Your task to perform on an android device: turn off wifi Image 0: 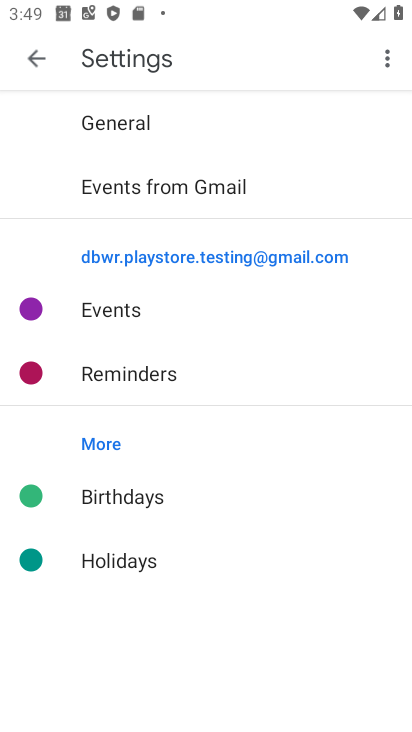
Step 0: press home button
Your task to perform on an android device: turn off wifi Image 1: 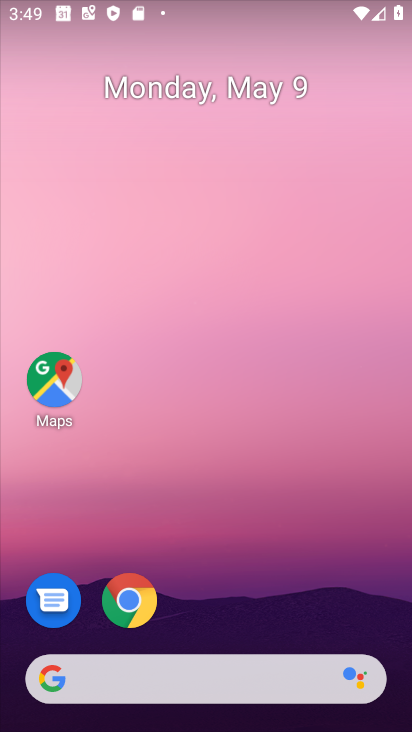
Step 1: drag from (266, 652) to (294, 58)
Your task to perform on an android device: turn off wifi Image 2: 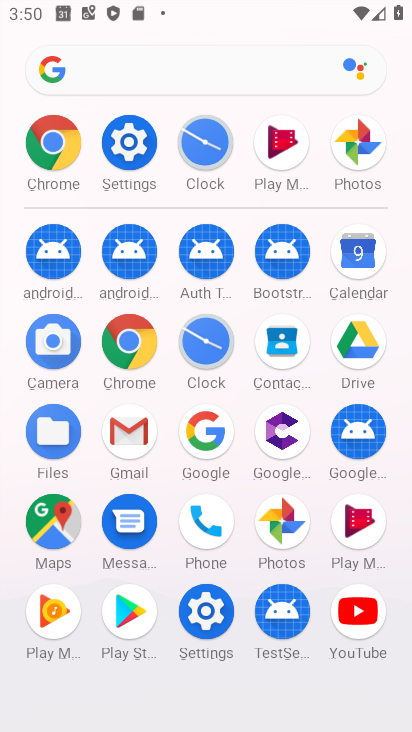
Step 2: click (120, 139)
Your task to perform on an android device: turn off wifi Image 3: 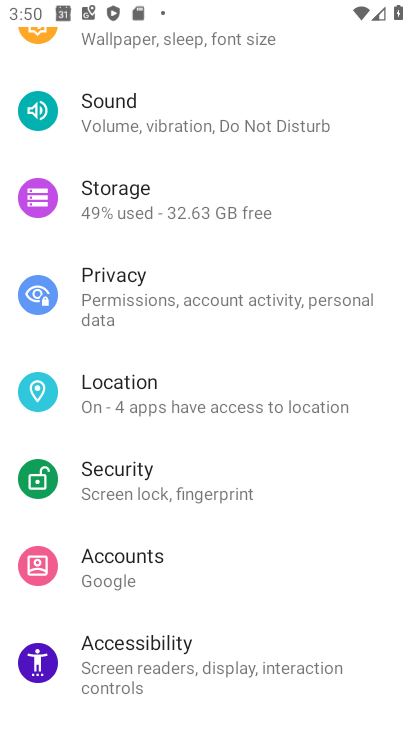
Step 3: drag from (196, 158) to (168, 717)
Your task to perform on an android device: turn off wifi Image 4: 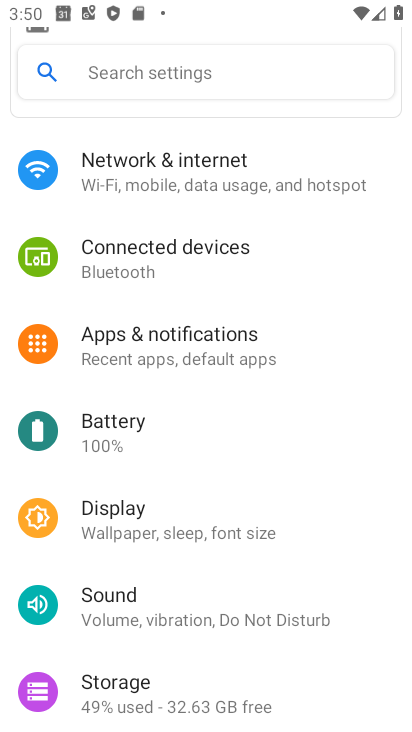
Step 4: click (157, 179)
Your task to perform on an android device: turn off wifi Image 5: 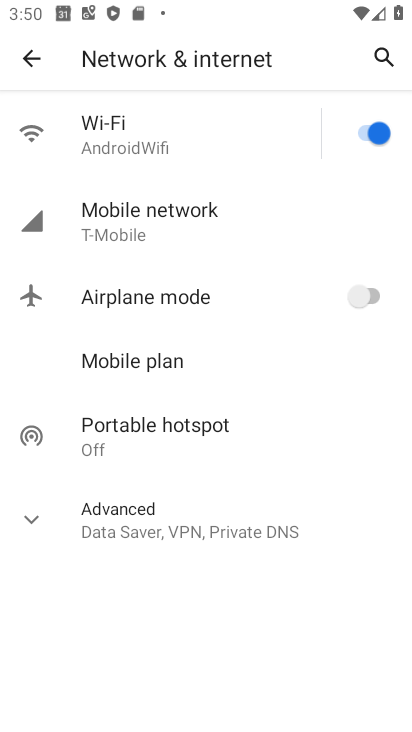
Step 5: click (365, 133)
Your task to perform on an android device: turn off wifi Image 6: 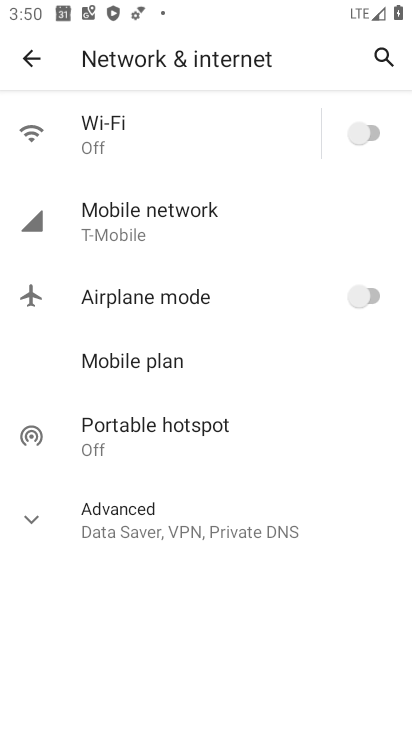
Step 6: task complete